Your task to perform on an android device: What's the news in Uruguay? Image 0: 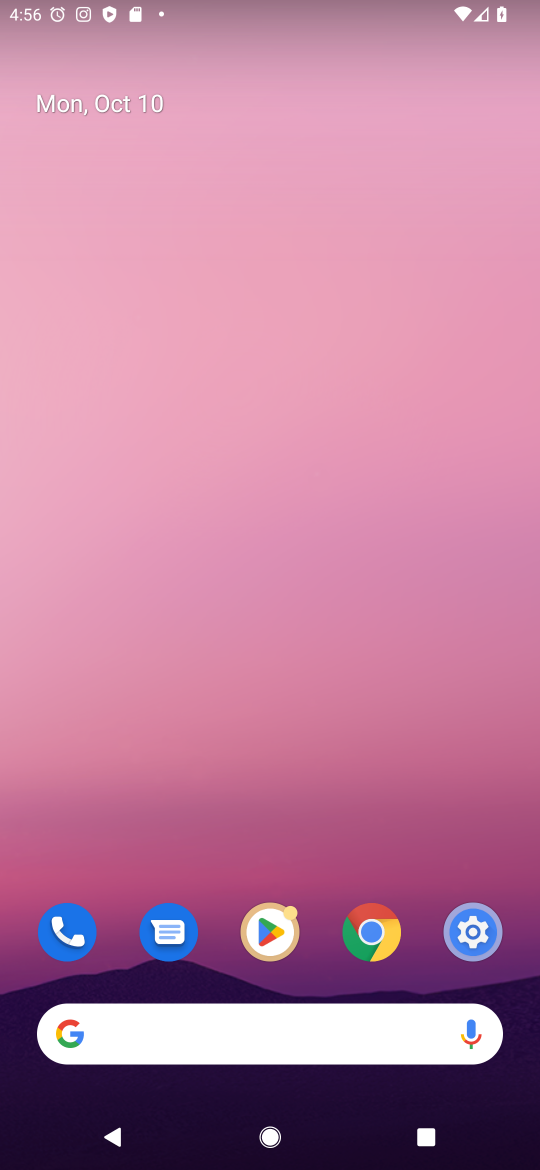
Step 0: click (377, 1030)
Your task to perform on an android device: What's the news in Uruguay? Image 1: 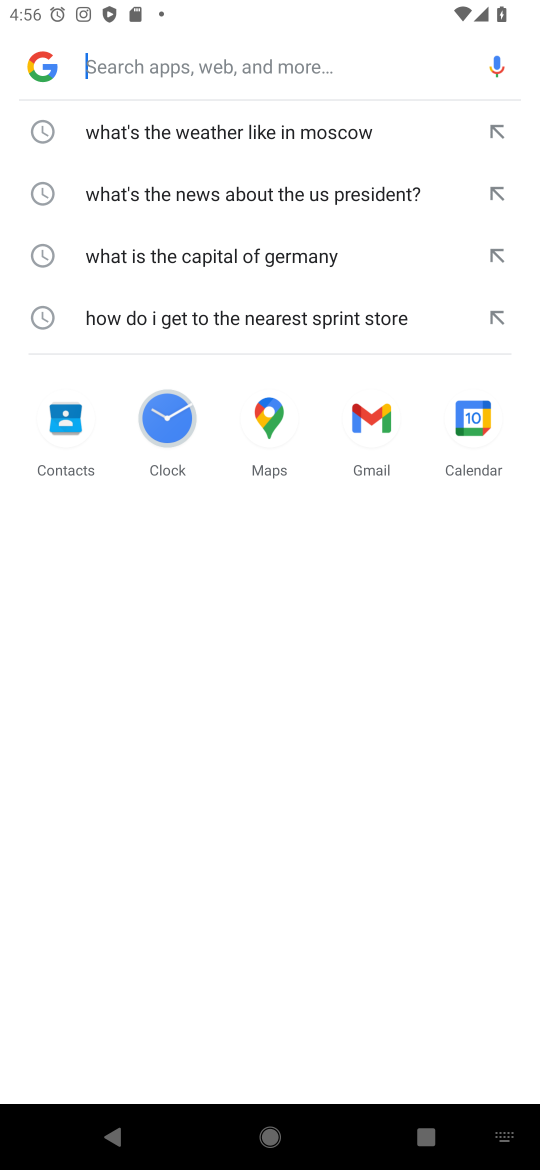
Step 1: type "What's the news in Uruguay"
Your task to perform on an android device: What's the news in Uruguay? Image 2: 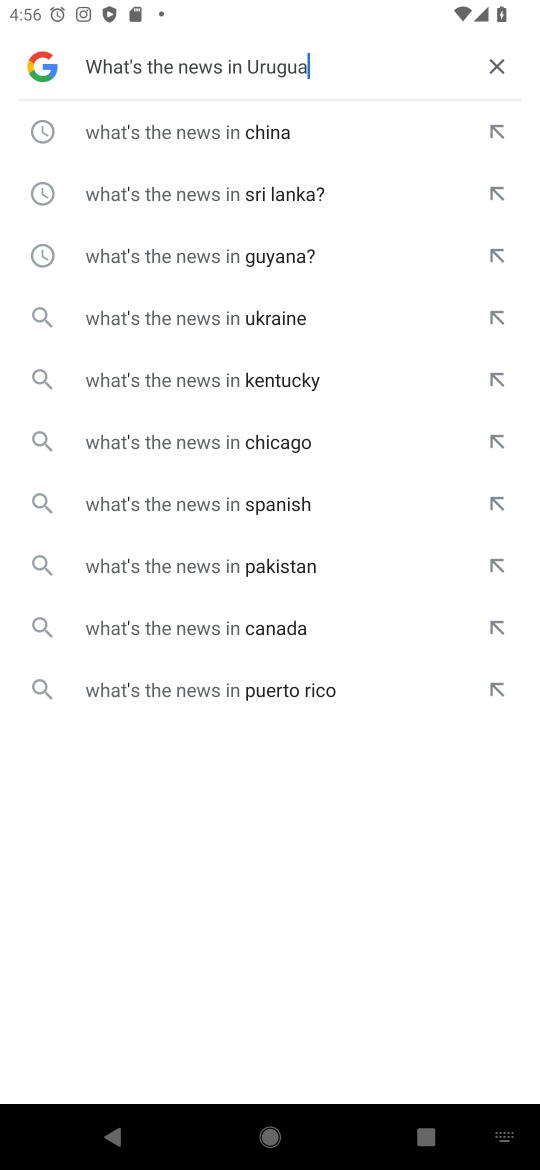
Step 2: press enter
Your task to perform on an android device: What's the news in Uruguay? Image 3: 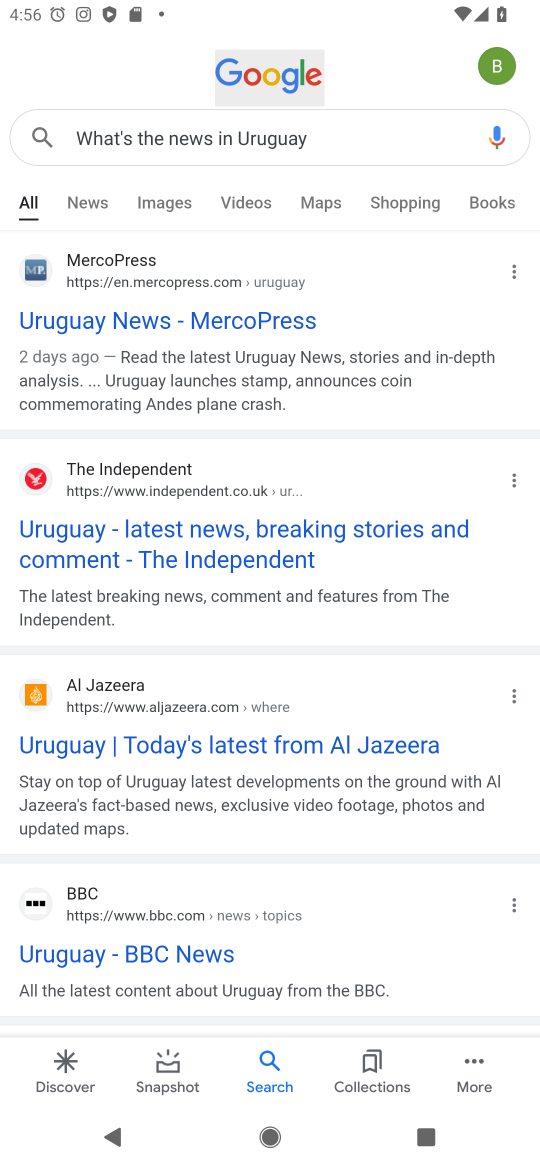
Step 3: click (156, 947)
Your task to perform on an android device: What's the news in Uruguay? Image 4: 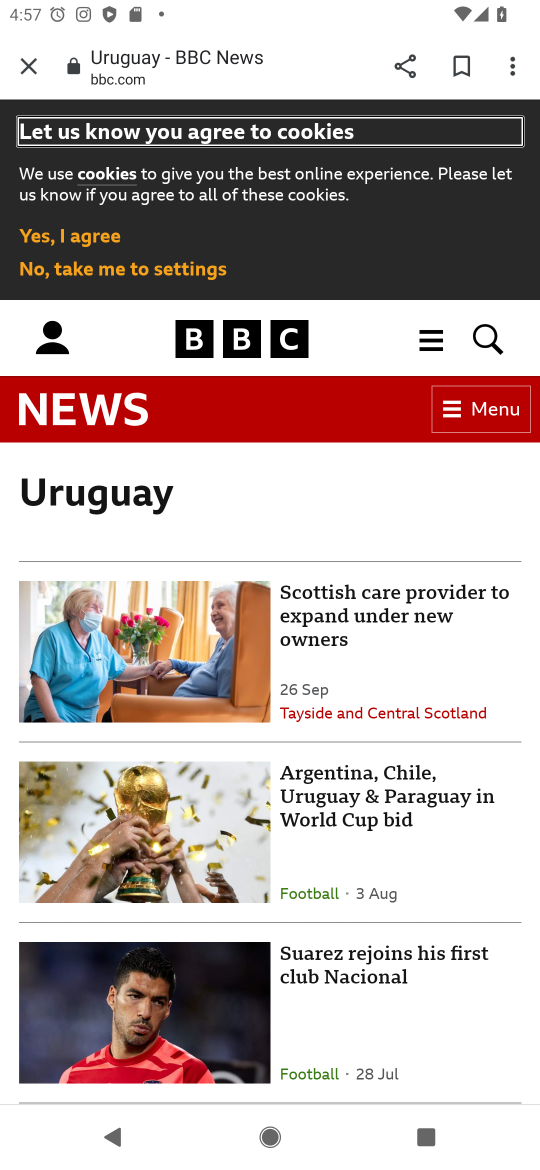
Step 4: task complete